Your task to perform on an android device: change notification settings in the gmail app Image 0: 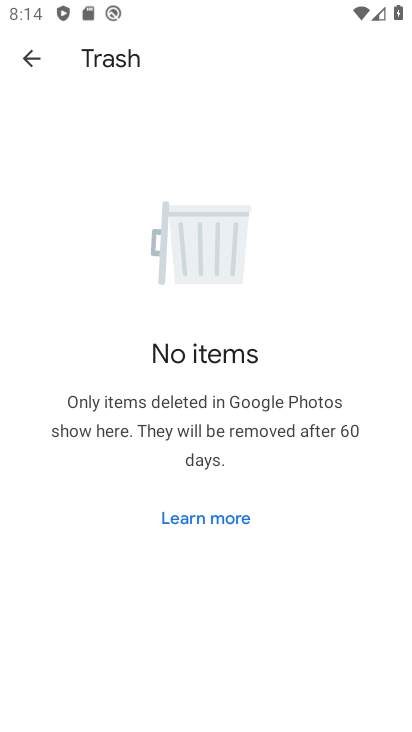
Step 0: press home button
Your task to perform on an android device: change notification settings in the gmail app Image 1: 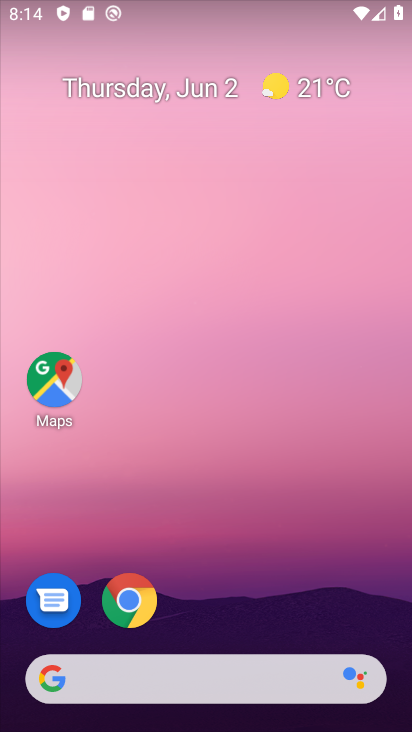
Step 1: drag from (207, 643) to (213, 228)
Your task to perform on an android device: change notification settings in the gmail app Image 2: 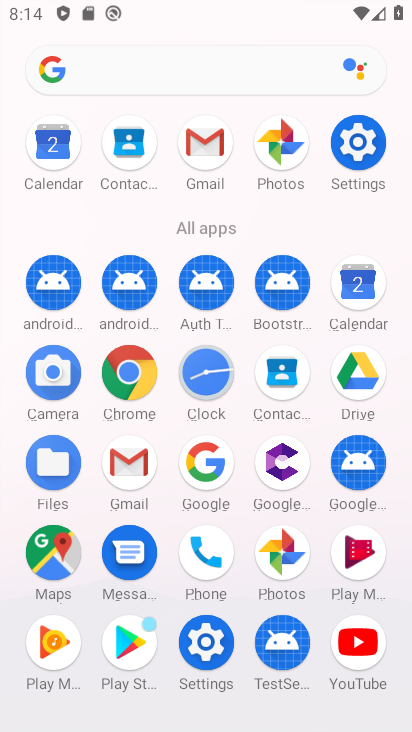
Step 2: click (129, 467)
Your task to perform on an android device: change notification settings in the gmail app Image 3: 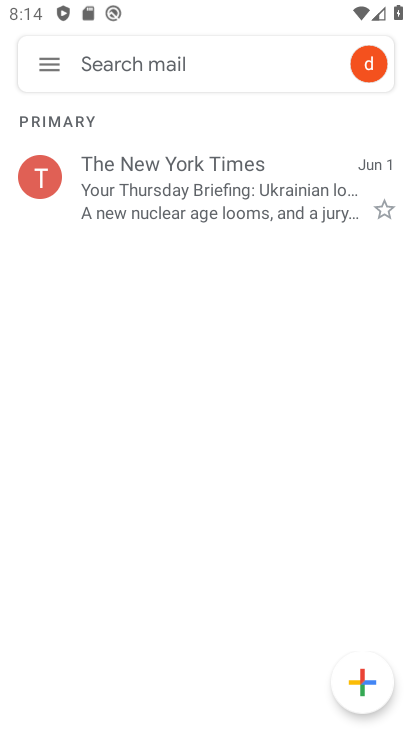
Step 3: click (50, 72)
Your task to perform on an android device: change notification settings in the gmail app Image 4: 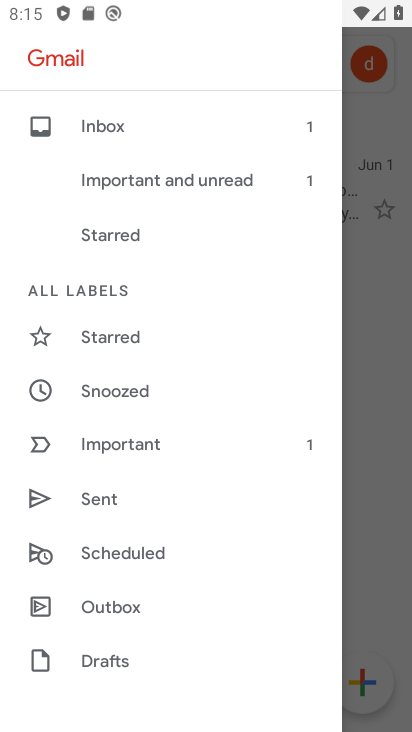
Step 4: drag from (149, 661) to (183, 399)
Your task to perform on an android device: change notification settings in the gmail app Image 5: 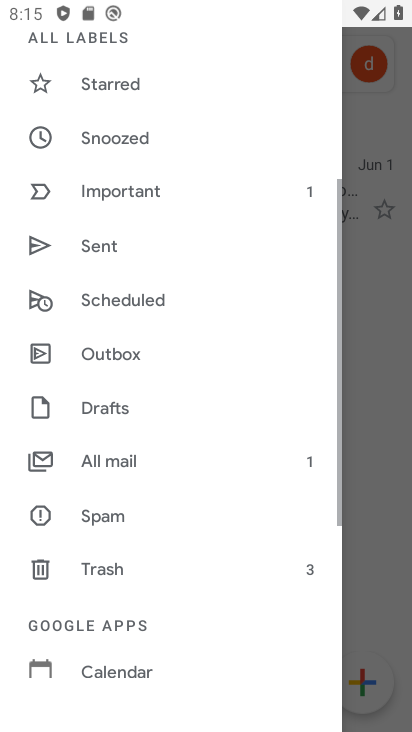
Step 5: drag from (181, 599) to (218, 327)
Your task to perform on an android device: change notification settings in the gmail app Image 6: 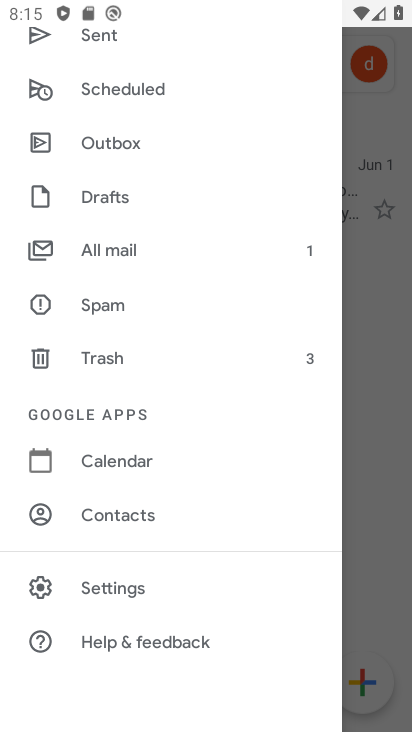
Step 6: click (145, 587)
Your task to perform on an android device: change notification settings in the gmail app Image 7: 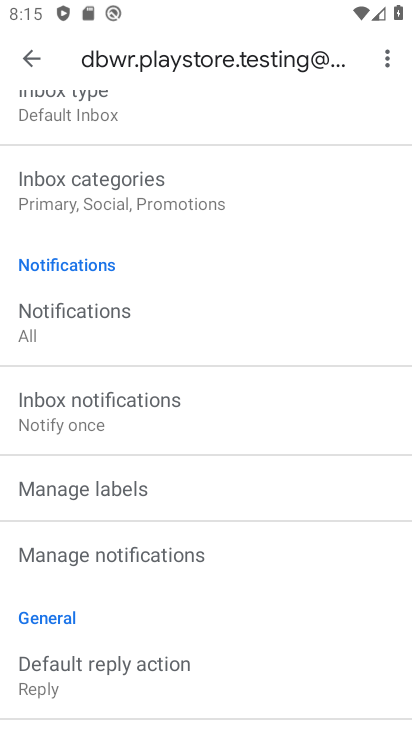
Step 7: click (136, 558)
Your task to perform on an android device: change notification settings in the gmail app Image 8: 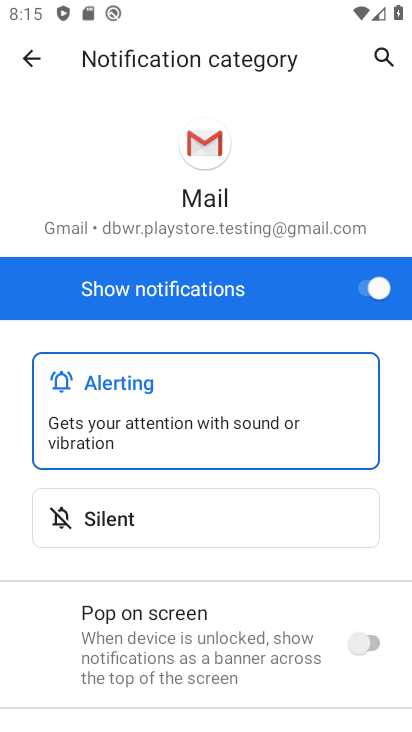
Step 8: click (355, 284)
Your task to perform on an android device: change notification settings in the gmail app Image 9: 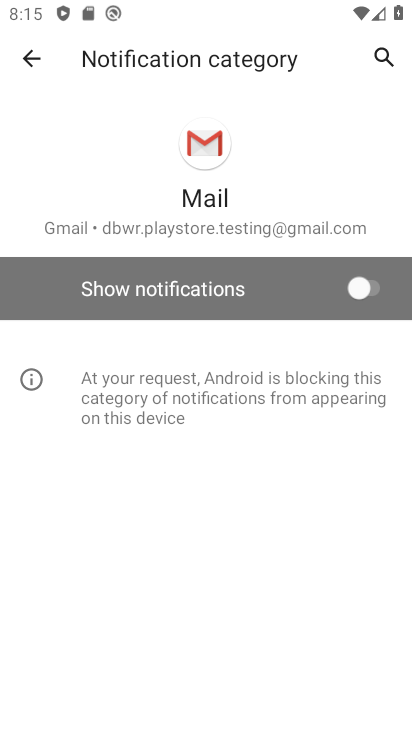
Step 9: task complete